Your task to perform on an android device: turn on the 12-hour format for clock Image 0: 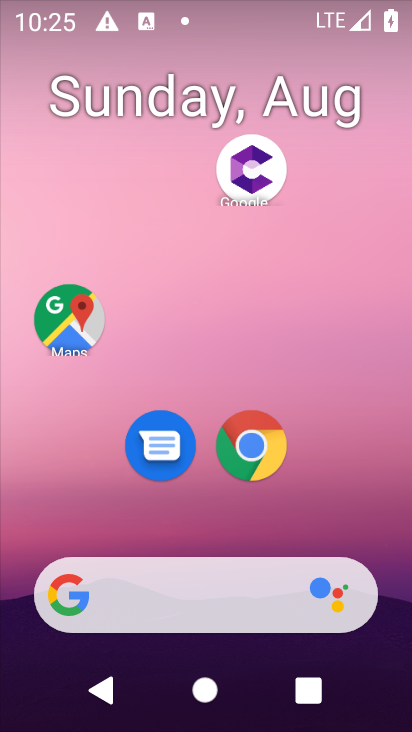
Step 0: press home button
Your task to perform on an android device: turn on the 12-hour format for clock Image 1: 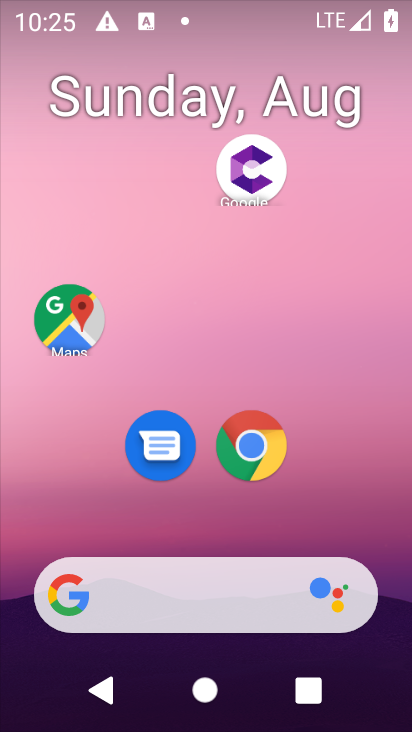
Step 1: drag from (206, 532) to (209, 52)
Your task to perform on an android device: turn on the 12-hour format for clock Image 2: 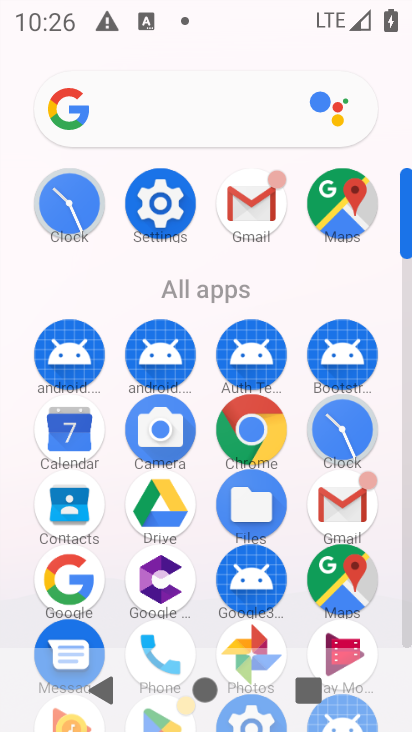
Step 2: click (335, 426)
Your task to perform on an android device: turn on the 12-hour format for clock Image 3: 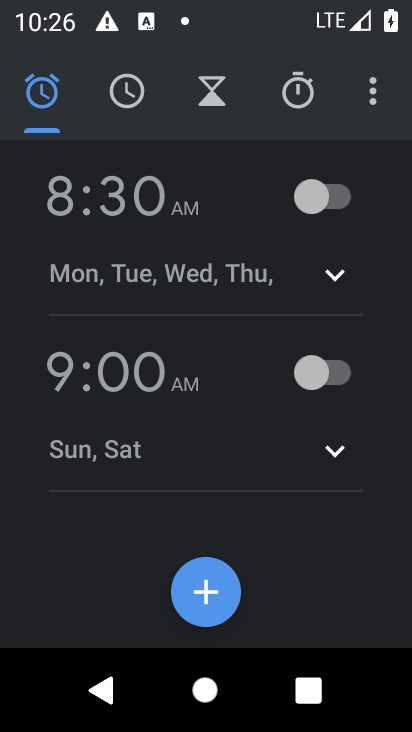
Step 3: click (372, 83)
Your task to perform on an android device: turn on the 12-hour format for clock Image 4: 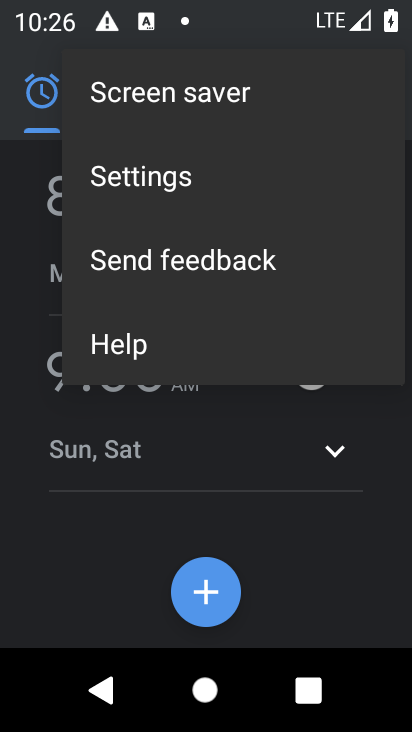
Step 4: click (203, 180)
Your task to perform on an android device: turn on the 12-hour format for clock Image 5: 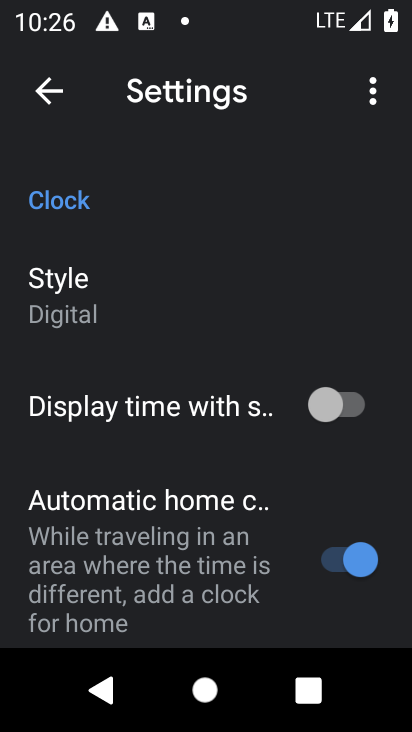
Step 5: drag from (222, 603) to (241, 123)
Your task to perform on an android device: turn on the 12-hour format for clock Image 6: 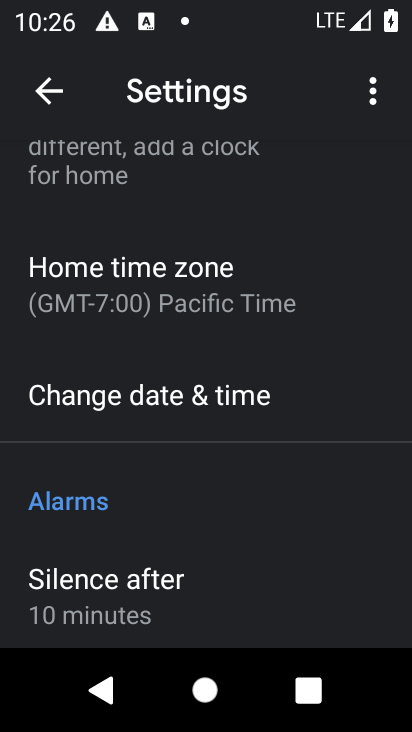
Step 6: click (177, 400)
Your task to perform on an android device: turn on the 12-hour format for clock Image 7: 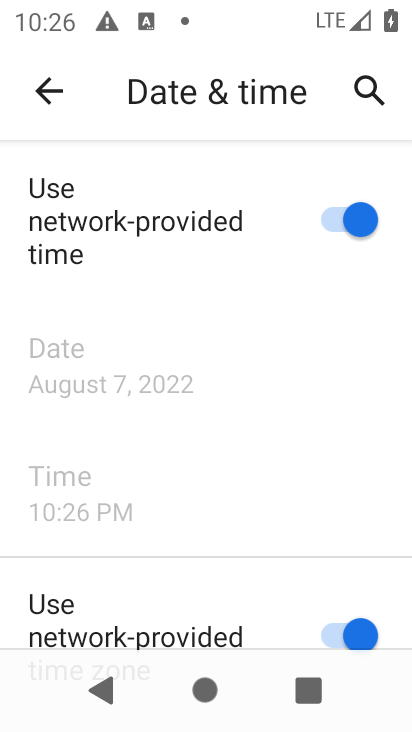
Step 7: task complete